Your task to perform on an android device: How much does a 3 bedroom apartment rent for in Los Angeles? Image 0: 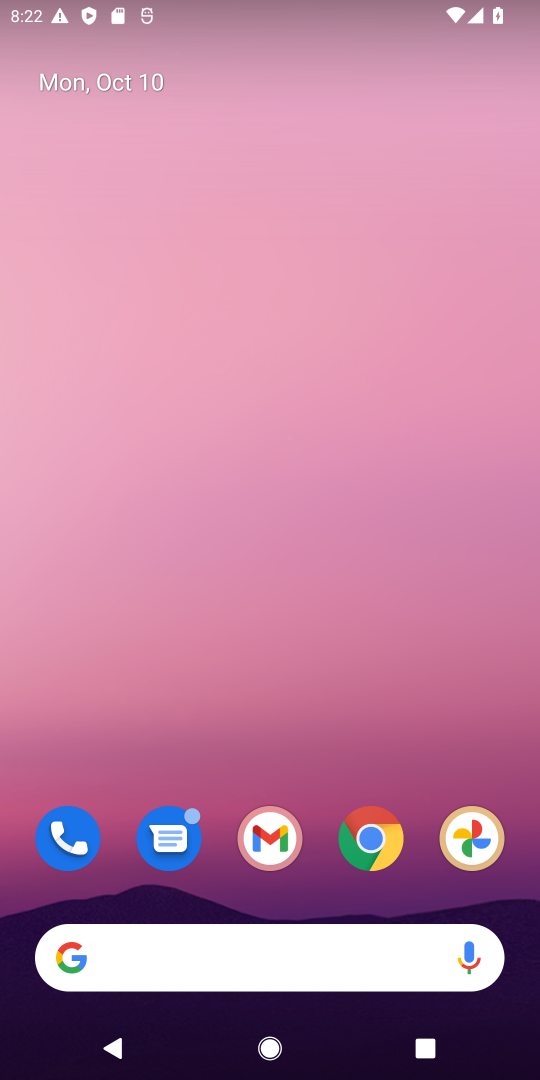
Step 0: drag from (305, 904) to (224, 201)
Your task to perform on an android device: How much does a 3 bedroom apartment rent for in Los Angeles? Image 1: 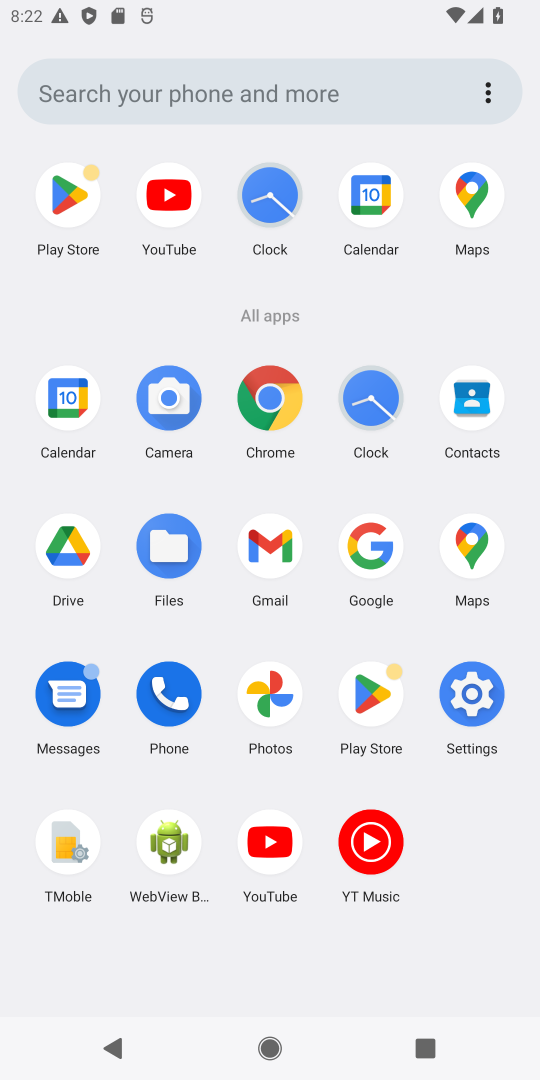
Step 1: click (261, 403)
Your task to perform on an android device: How much does a 3 bedroom apartment rent for in Los Angeles? Image 2: 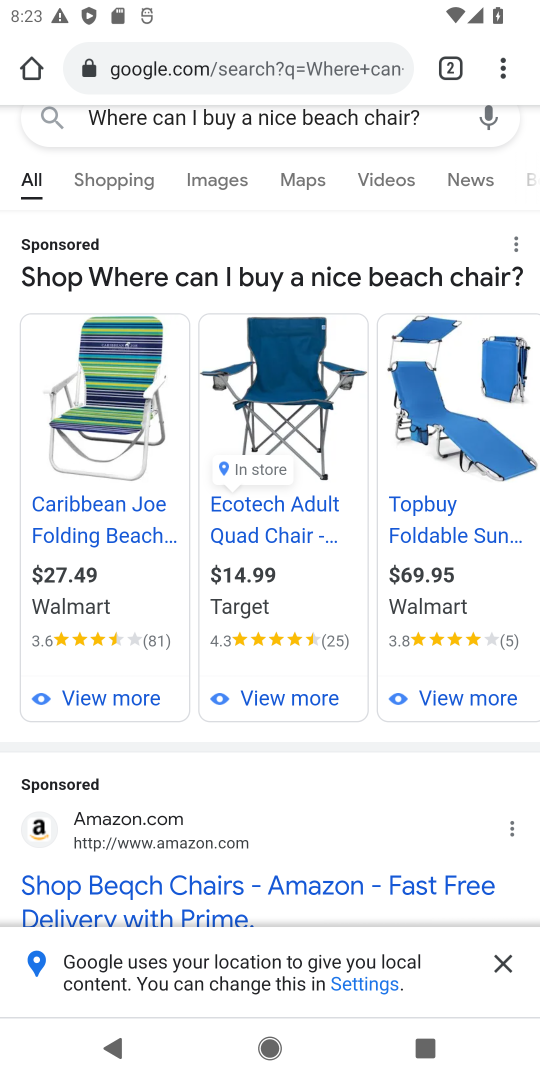
Step 2: click (338, 120)
Your task to perform on an android device: How much does a 3 bedroom apartment rent for in Los Angeles? Image 3: 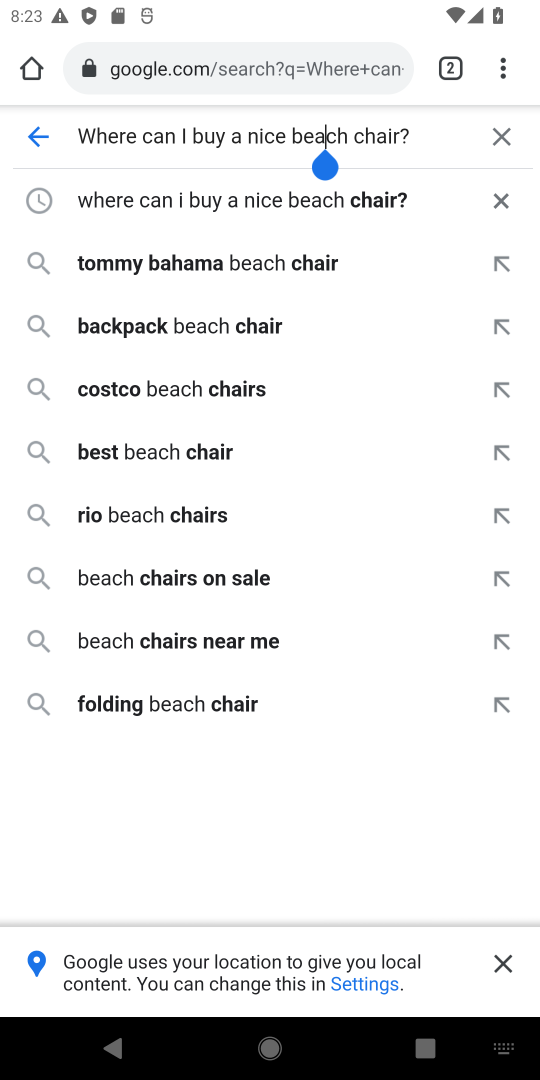
Step 3: click (499, 135)
Your task to perform on an android device: How much does a 3 bedroom apartment rent for in Los Angeles? Image 4: 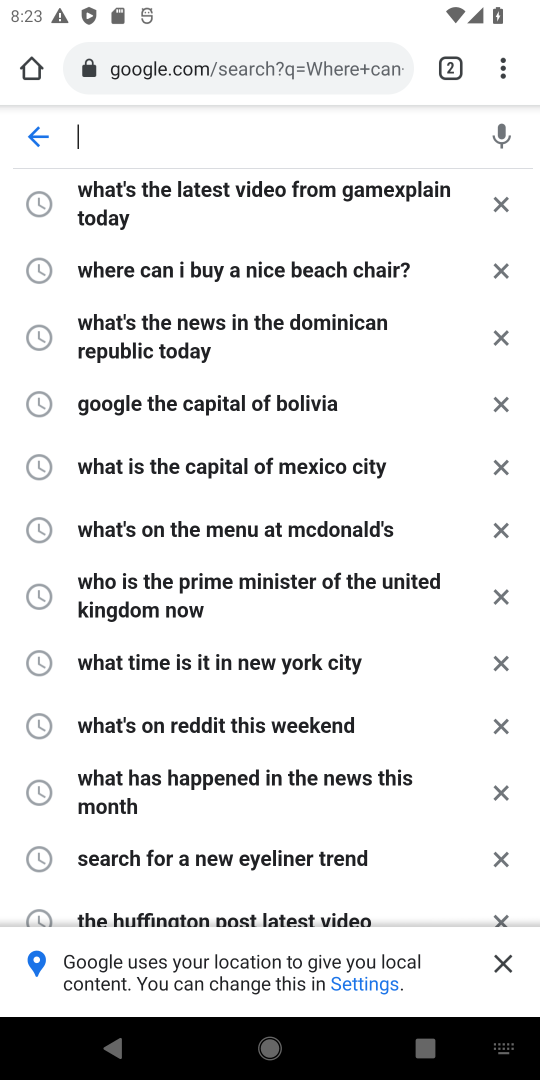
Step 4: type "How much does a 3 bedroom apartment rent for in Los Angeles?"
Your task to perform on an android device: How much does a 3 bedroom apartment rent for in Los Angeles? Image 5: 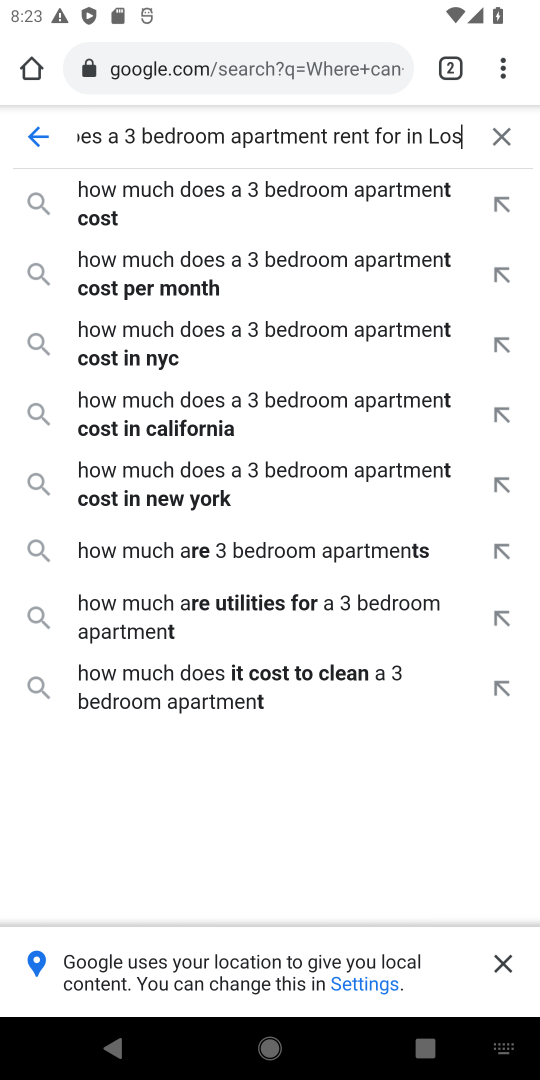
Step 5: type ""
Your task to perform on an android device: How much does a 3 bedroom apartment rent for in Los Angeles? Image 6: 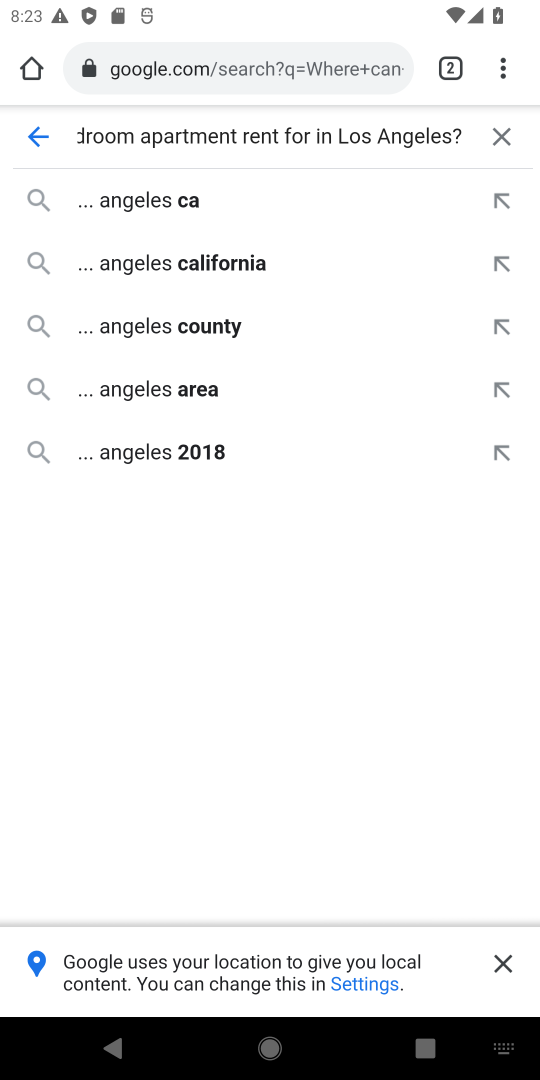
Step 6: click (270, 133)
Your task to perform on an android device: How much does a 3 bedroom apartment rent for in Los Angeles? Image 7: 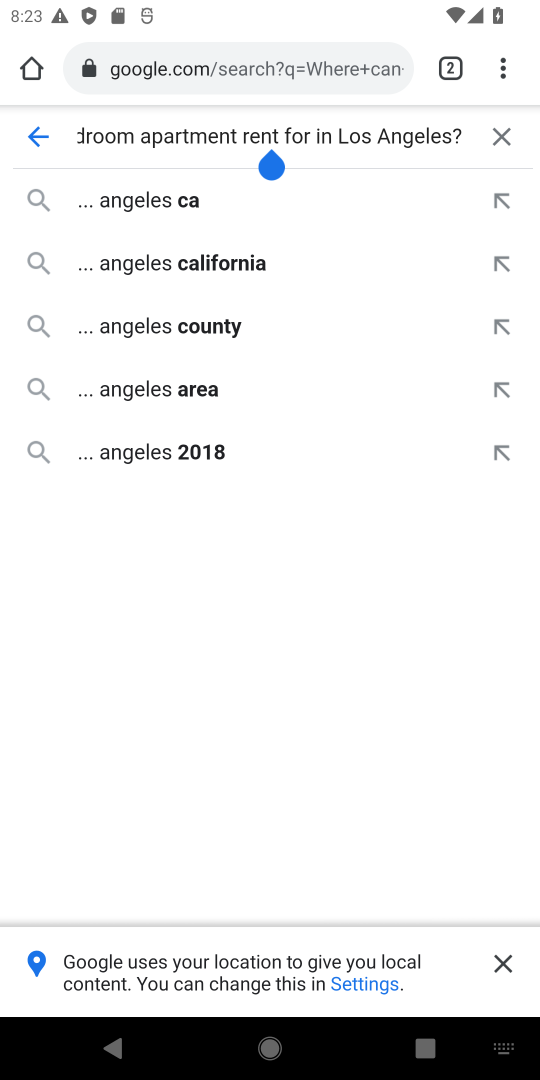
Step 7: click (170, 204)
Your task to perform on an android device: How much does a 3 bedroom apartment rent for in Los Angeles? Image 8: 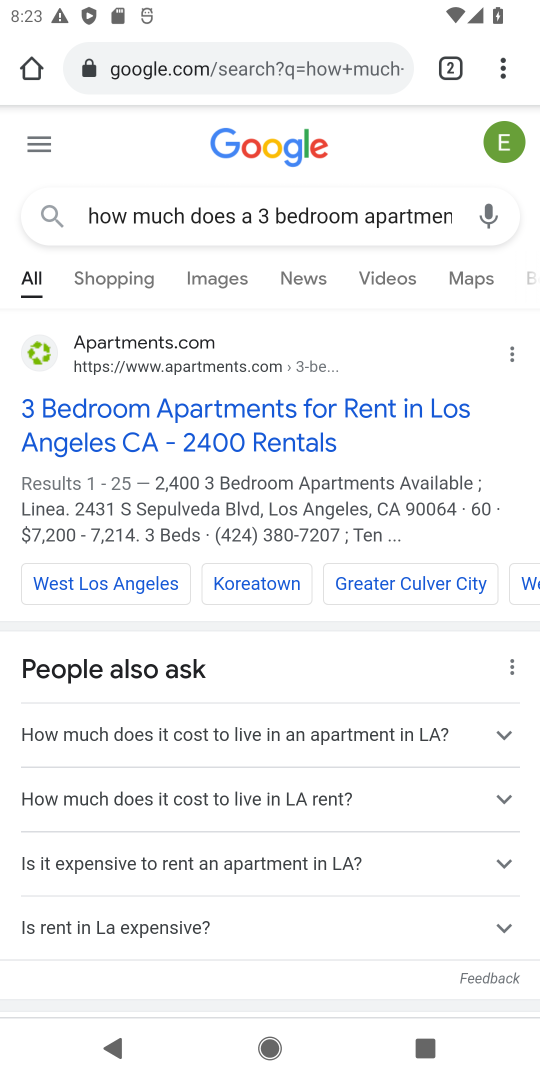
Step 8: click (211, 731)
Your task to perform on an android device: How much does a 3 bedroom apartment rent for in Los Angeles? Image 9: 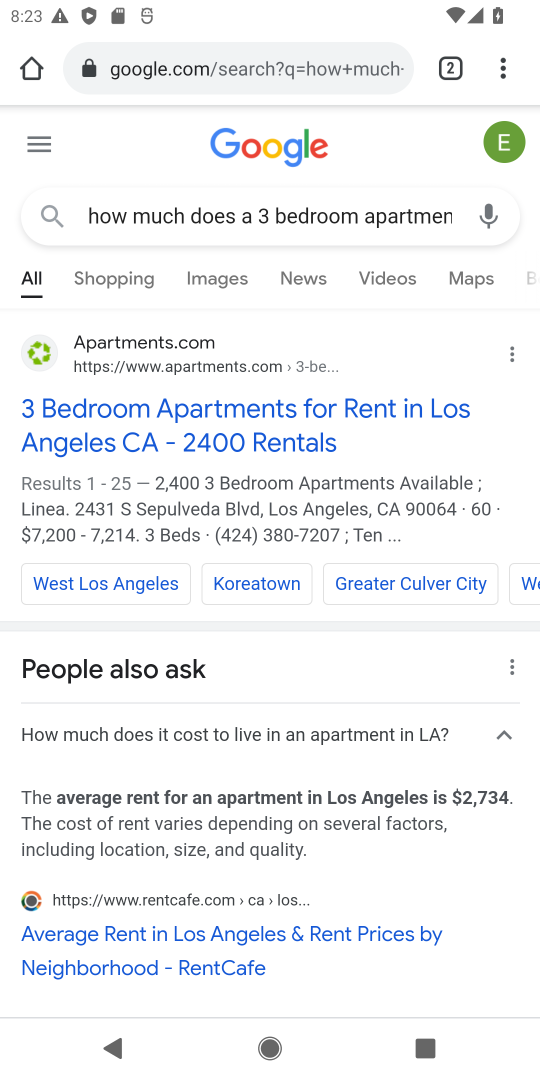
Step 9: task complete